Your task to perform on an android device: delete browsing data in the chrome app Image 0: 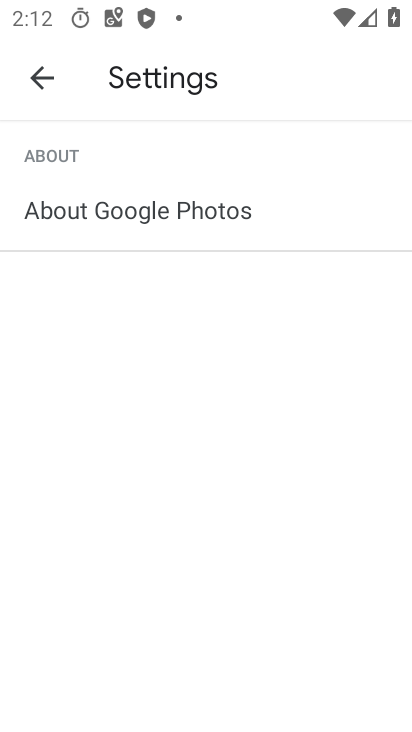
Step 0: press home button
Your task to perform on an android device: delete browsing data in the chrome app Image 1: 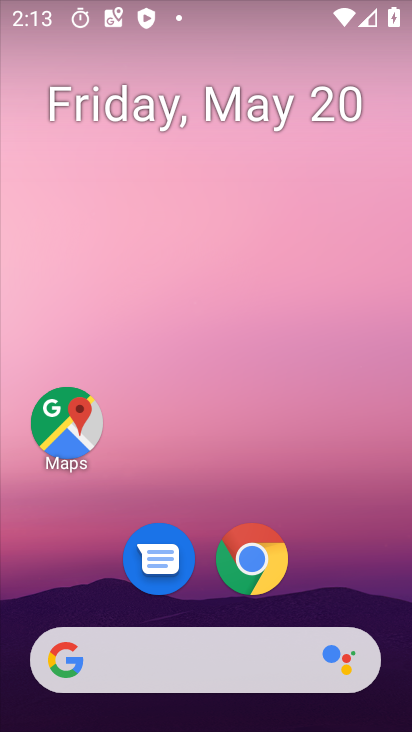
Step 1: click (254, 560)
Your task to perform on an android device: delete browsing data in the chrome app Image 2: 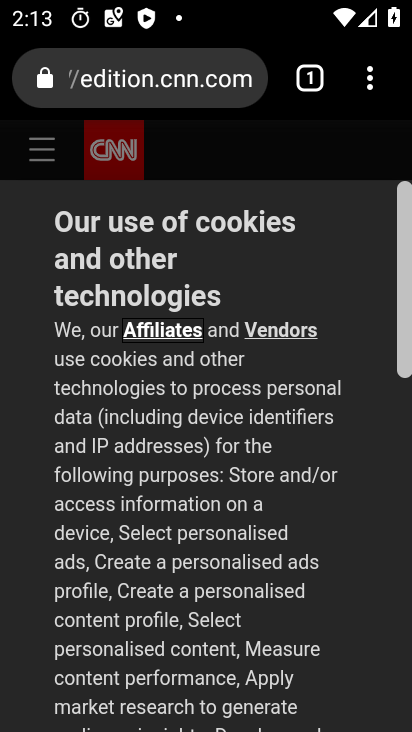
Step 2: click (371, 75)
Your task to perform on an android device: delete browsing data in the chrome app Image 3: 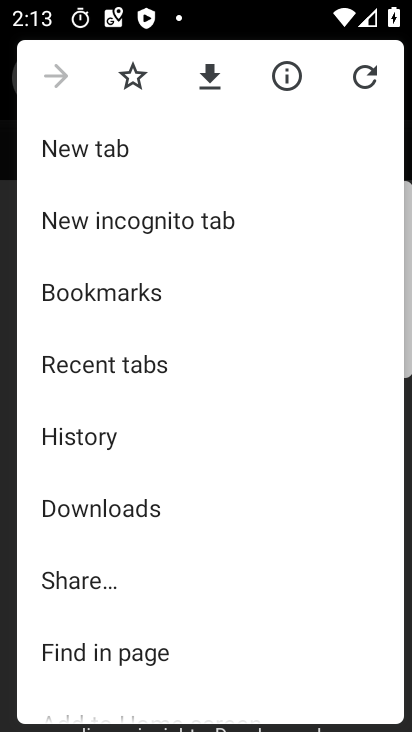
Step 3: drag from (166, 461) to (173, 414)
Your task to perform on an android device: delete browsing data in the chrome app Image 4: 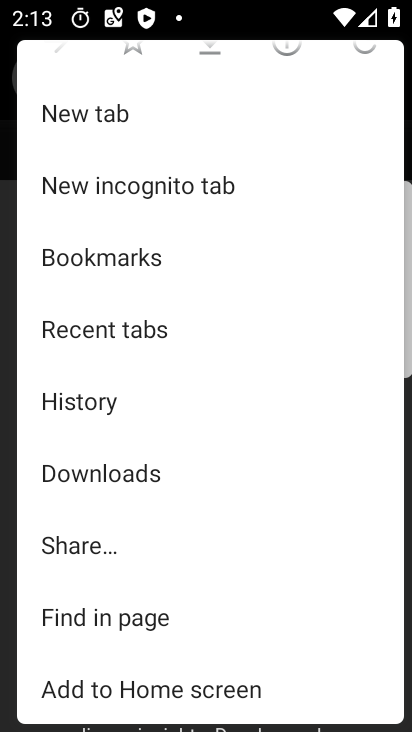
Step 4: drag from (163, 623) to (206, 499)
Your task to perform on an android device: delete browsing data in the chrome app Image 5: 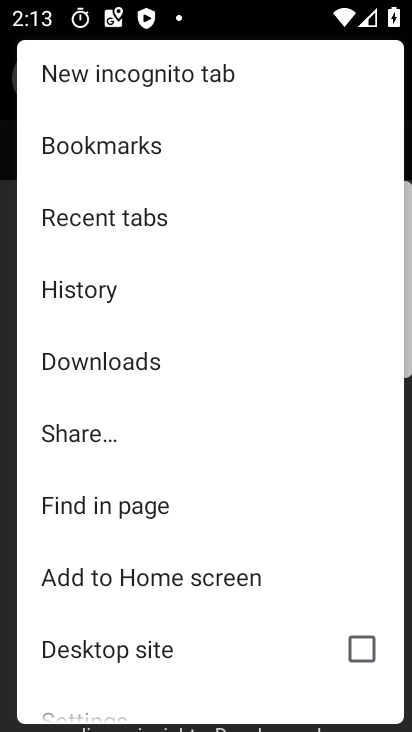
Step 5: drag from (134, 608) to (203, 432)
Your task to perform on an android device: delete browsing data in the chrome app Image 6: 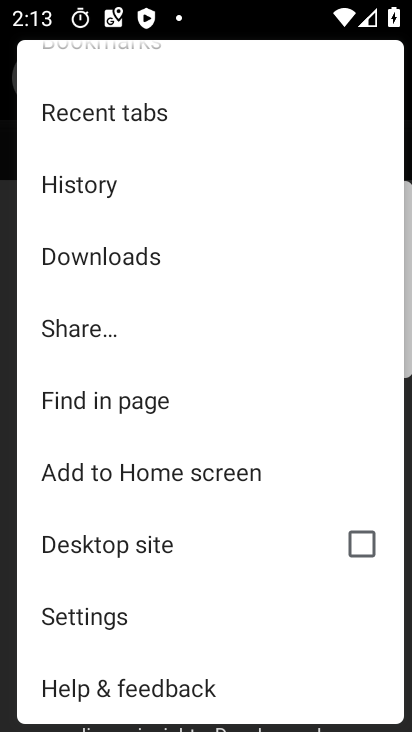
Step 6: click (120, 620)
Your task to perform on an android device: delete browsing data in the chrome app Image 7: 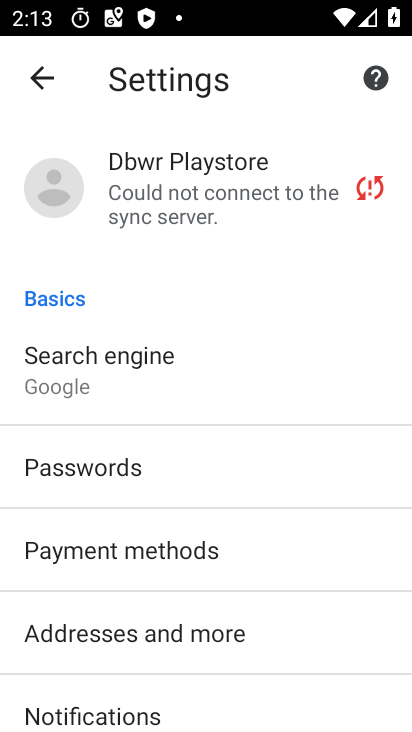
Step 7: drag from (207, 650) to (275, 445)
Your task to perform on an android device: delete browsing data in the chrome app Image 8: 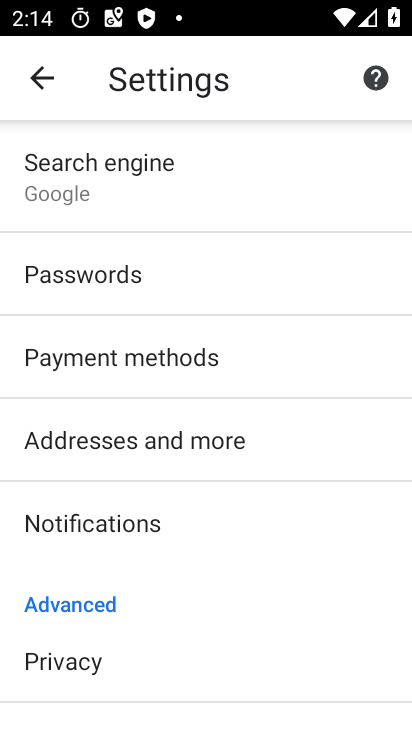
Step 8: click (80, 665)
Your task to perform on an android device: delete browsing data in the chrome app Image 9: 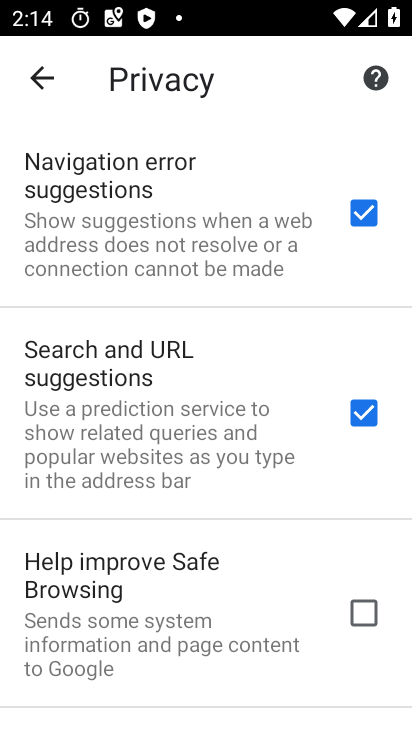
Step 9: drag from (183, 670) to (239, 434)
Your task to perform on an android device: delete browsing data in the chrome app Image 10: 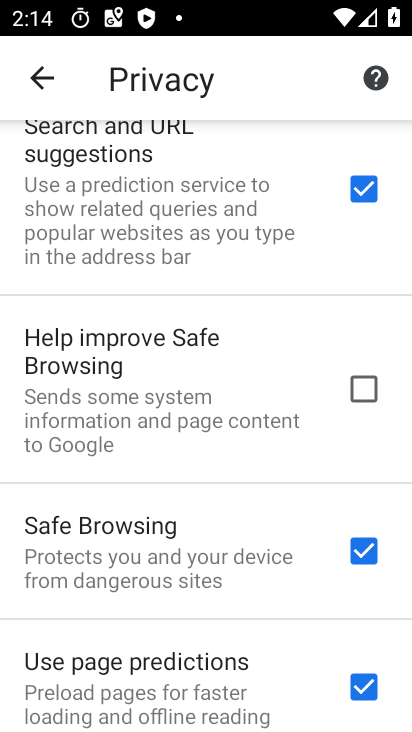
Step 10: drag from (193, 634) to (259, 414)
Your task to perform on an android device: delete browsing data in the chrome app Image 11: 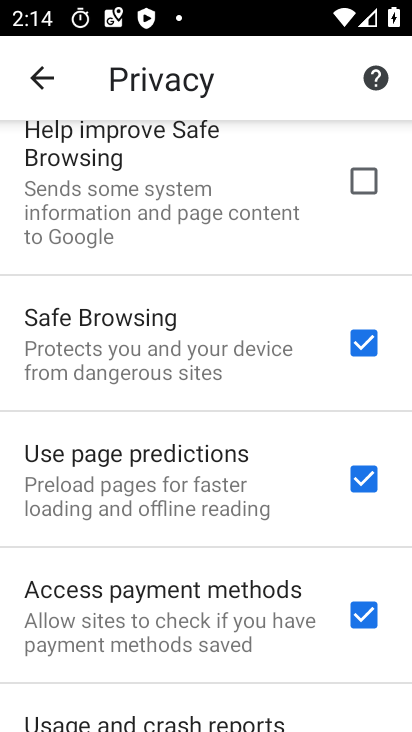
Step 11: drag from (188, 527) to (239, 365)
Your task to perform on an android device: delete browsing data in the chrome app Image 12: 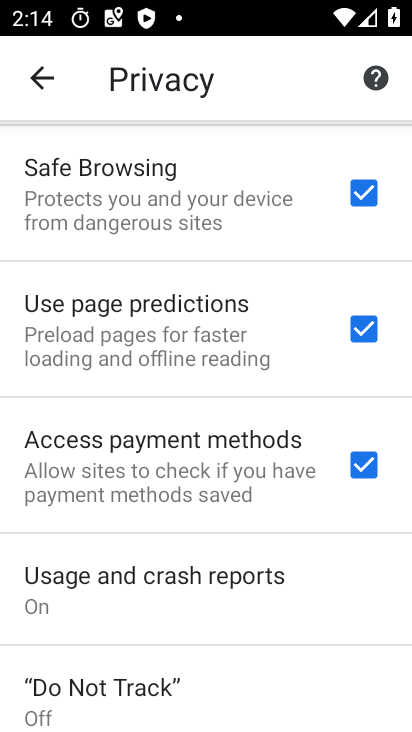
Step 12: drag from (229, 681) to (268, 484)
Your task to perform on an android device: delete browsing data in the chrome app Image 13: 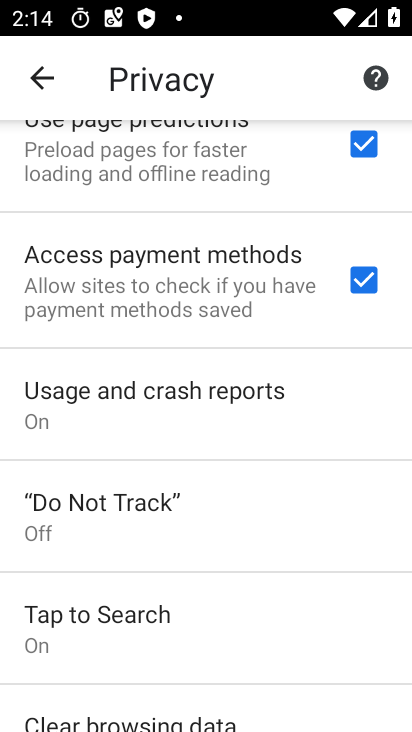
Step 13: drag from (182, 643) to (257, 479)
Your task to perform on an android device: delete browsing data in the chrome app Image 14: 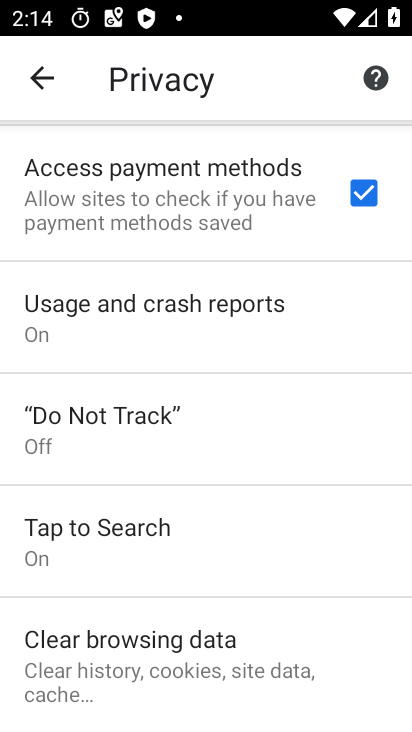
Step 14: click (167, 646)
Your task to perform on an android device: delete browsing data in the chrome app Image 15: 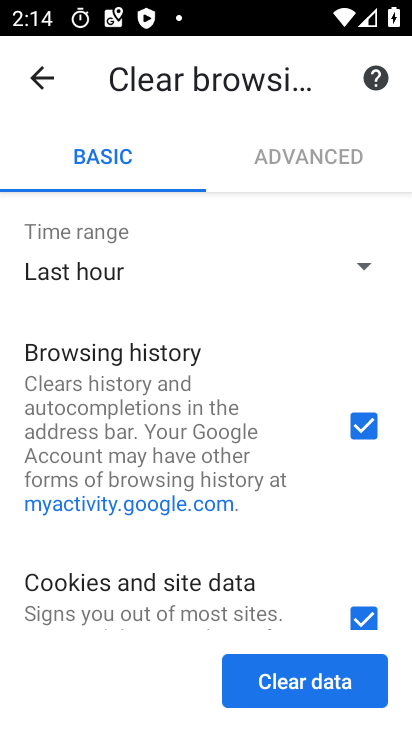
Step 15: click (285, 691)
Your task to perform on an android device: delete browsing data in the chrome app Image 16: 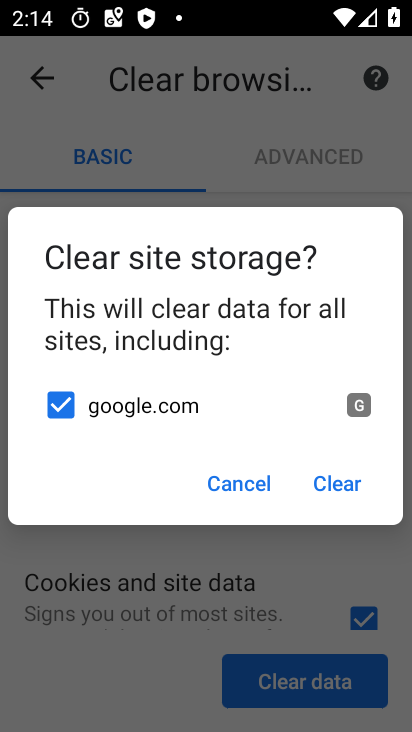
Step 16: click (331, 480)
Your task to perform on an android device: delete browsing data in the chrome app Image 17: 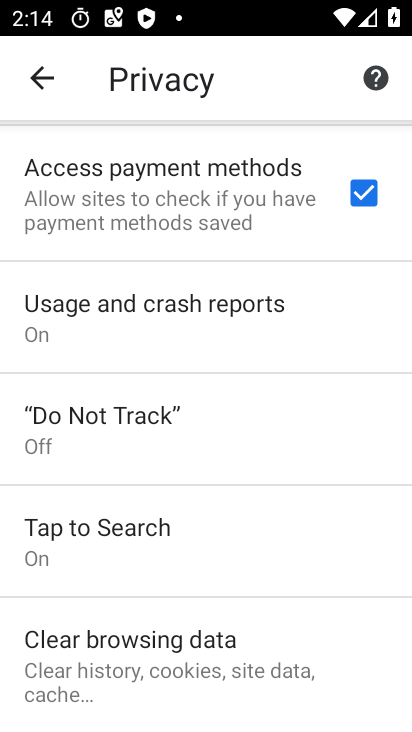
Step 17: task complete